Your task to perform on an android device: toggle translation in the chrome app Image 0: 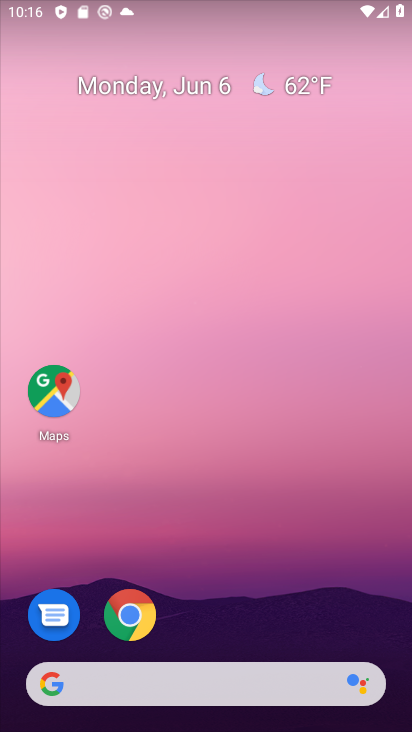
Step 0: click (127, 629)
Your task to perform on an android device: toggle translation in the chrome app Image 1: 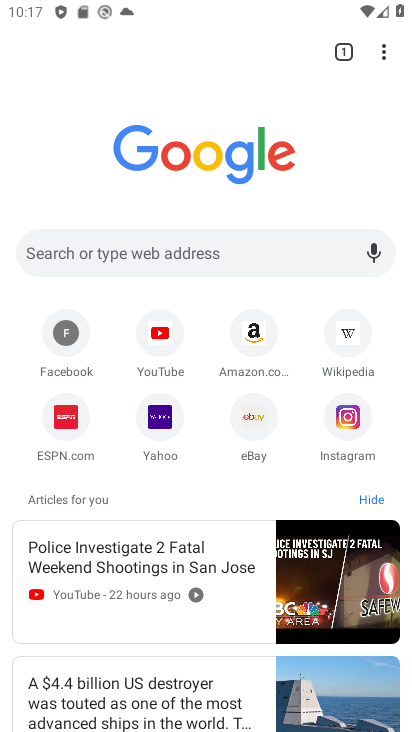
Step 1: drag from (393, 54) to (219, 483)
Your task to perform on an android device: toggle translation in the chrome app Image 2: 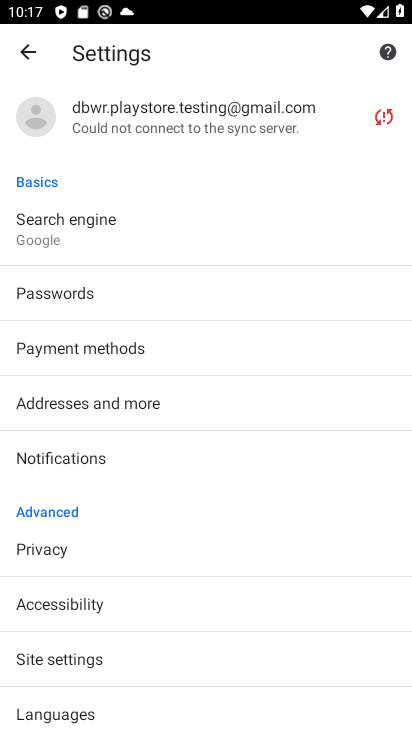
Step 2: drag from (118, 639) to (131, 319)
Your task to perform on an android device: toggle translation in the chrome app Image 3: 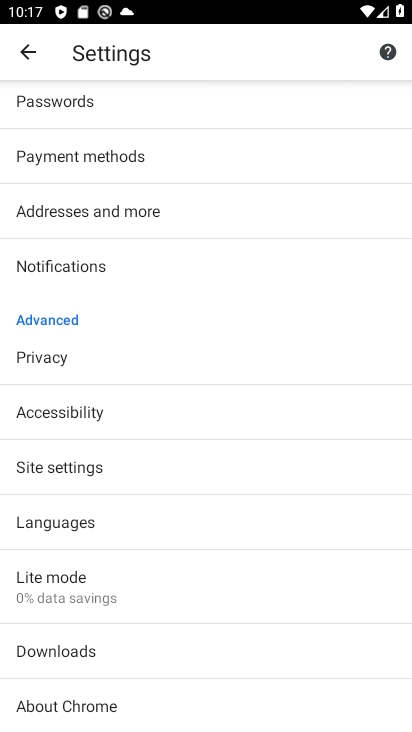
Step 3: click (118, 512)
Your task to perform on an android device: toggle translation in the chrome app Image 4: 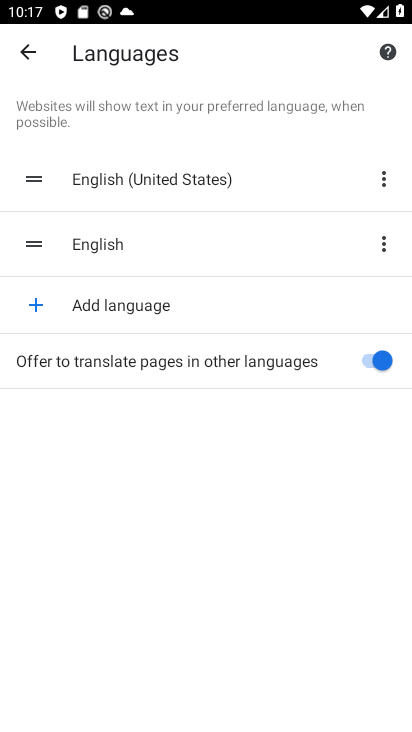
Step 4: click (377, 354)
Your task to perform on an android device: toggle translation in the chrome app Image 5: 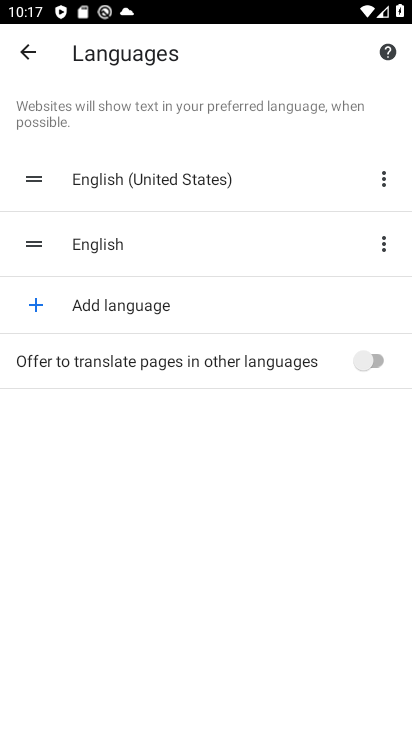
Step 5: task complete